Your task to perform on an android device: Open ESPN.com Image 0: 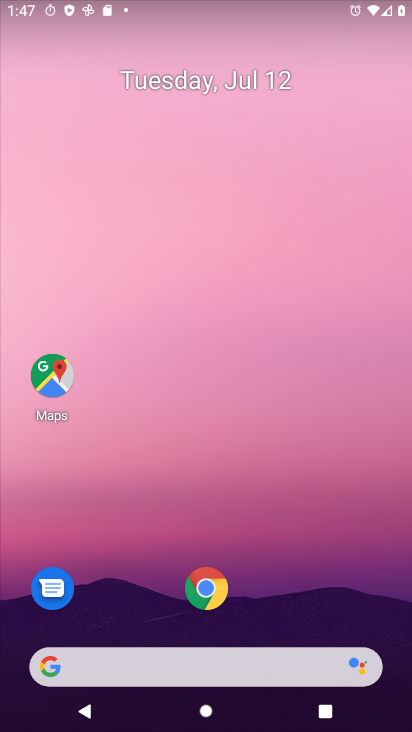
Step 0: click (206, 585)
Your task to perform on an android device: Open ESPN.com Image 1: 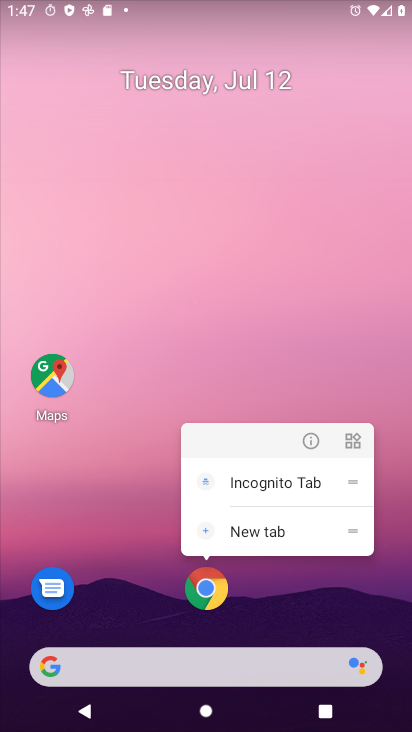
Step 1: click (200, 582)
Your task to perform on an android device: Open ESPN.com Image 2: 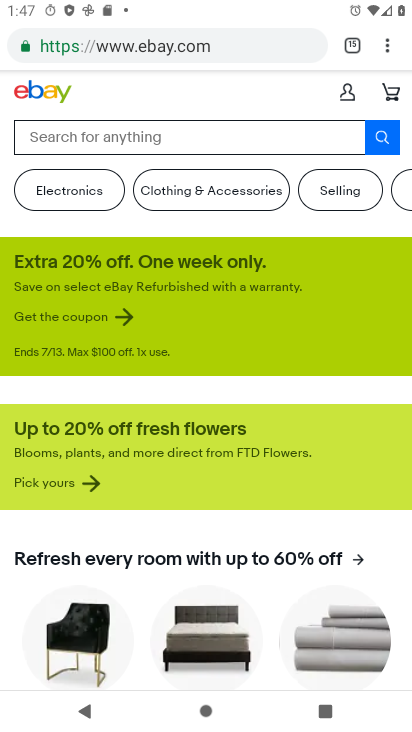
Step 2: drag from (387, 48) to (267, 94)
Your task to perform on an android device: Open ESPN.com Image 3: 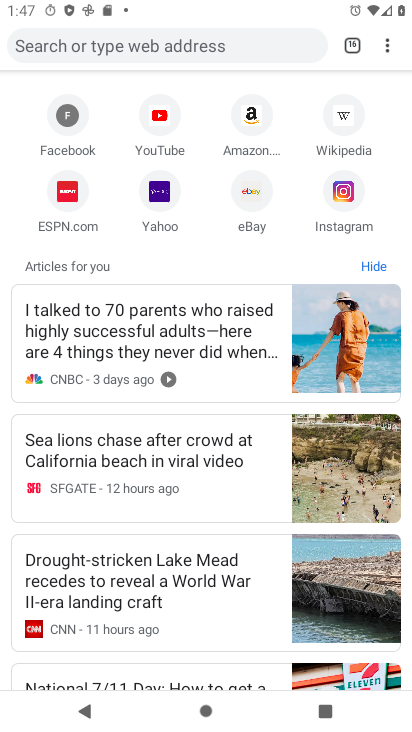
Step 3: click (69, 198)
Your task to perform on an android device: Open ESPN.com Image 4: 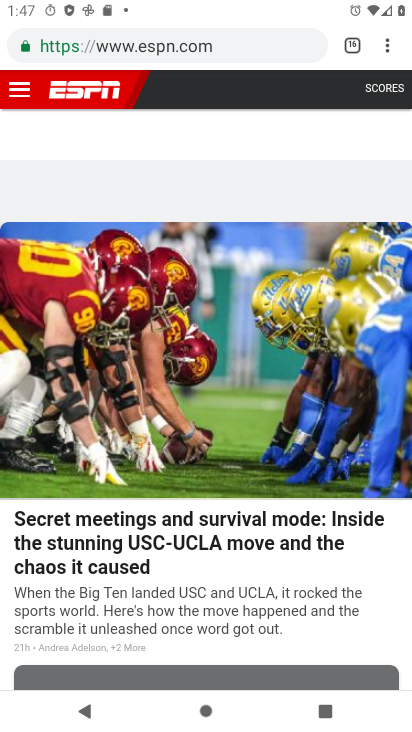
Step 4: task complete